Your task to perform on an android device: add a label to a message in the gmail app Image 0: 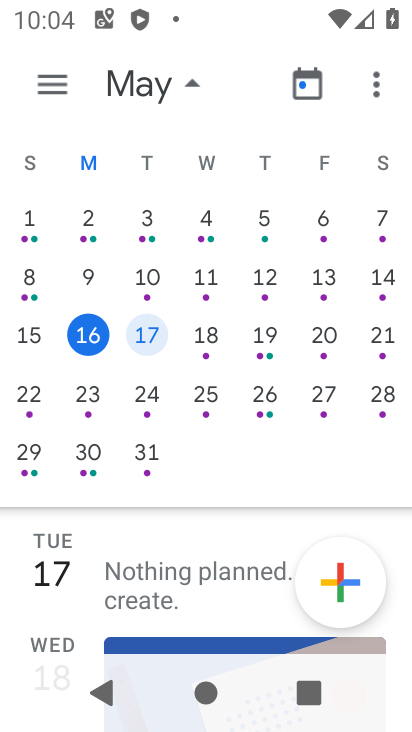
Step 0: press home button
Your task to perform on an android device: add a label to a message in the gmail app Image 1: 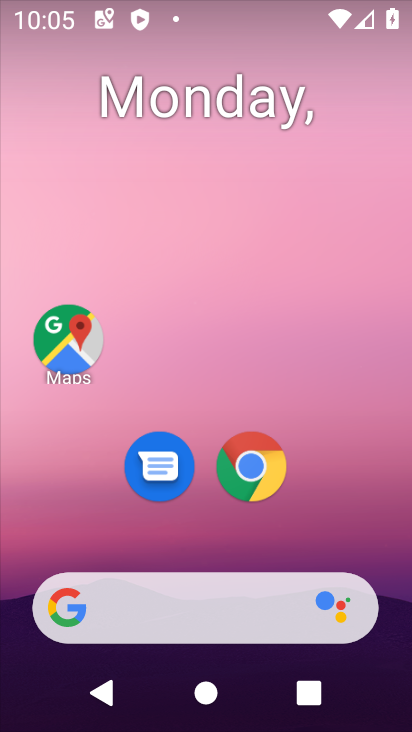
Step 1: drag from (250, 549) to (249, 192)
Your task to perform on an android device: add a label to a message in the gmail app Image 2: 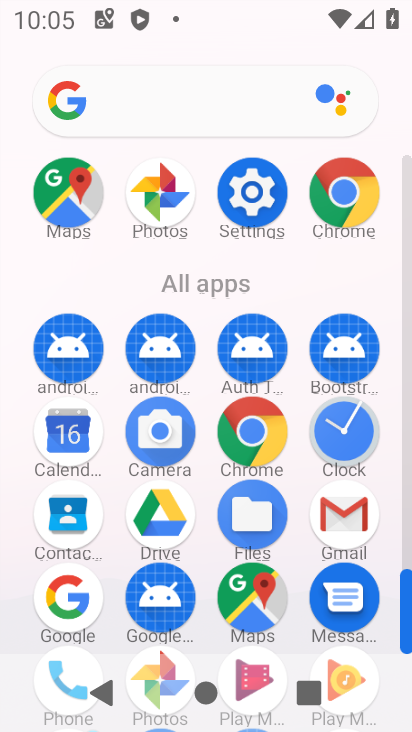
Step 2: click (344, 514)
Your task to perform on an android device: add a label to a message in the gmail app Image 3: 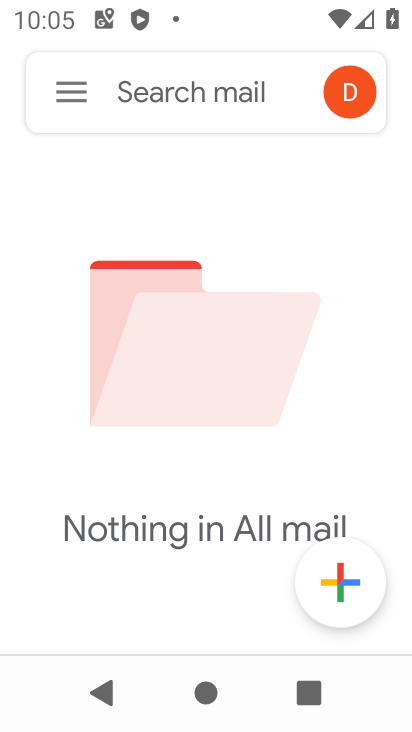
Step 3: click (78, 96)
Your task to perform on an android device: add a label to a message in the gmail app Image 4: 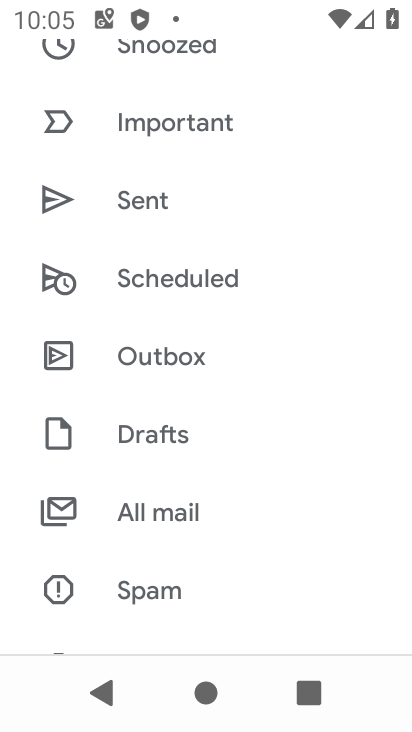
Step 4: click (176, 512)
Your task to perform on an android device: add a label to a message in the gmail app Image 5: 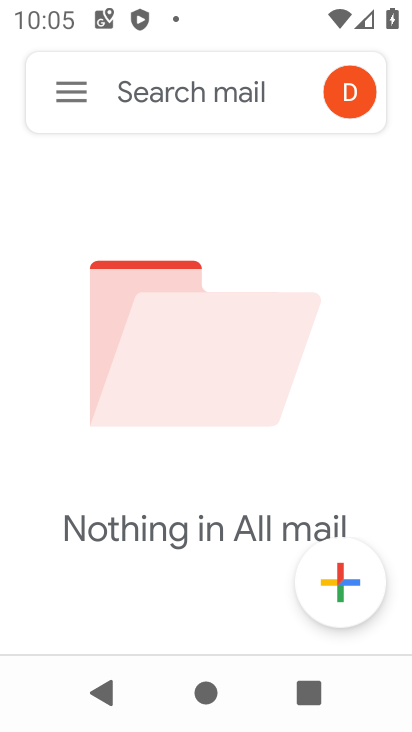
Step 5: task complete